Your task to perform on an android device: move a message to another label in the gmail app Image 0: 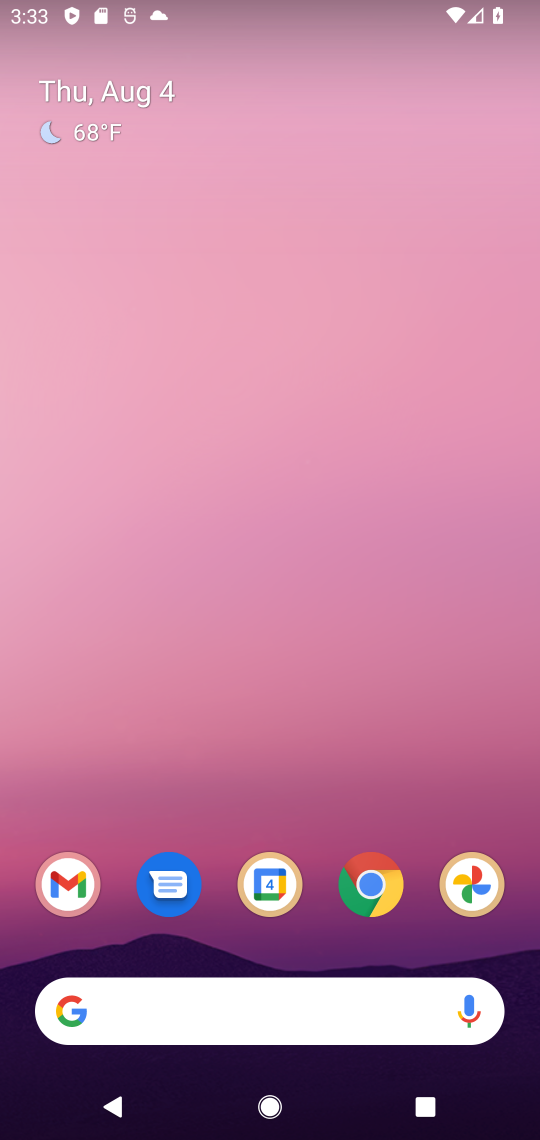
Step 0: drag from (124, 984) to (230, 219)
Your task to perform on an android device: move a message to another label in the gmail app Image 1: 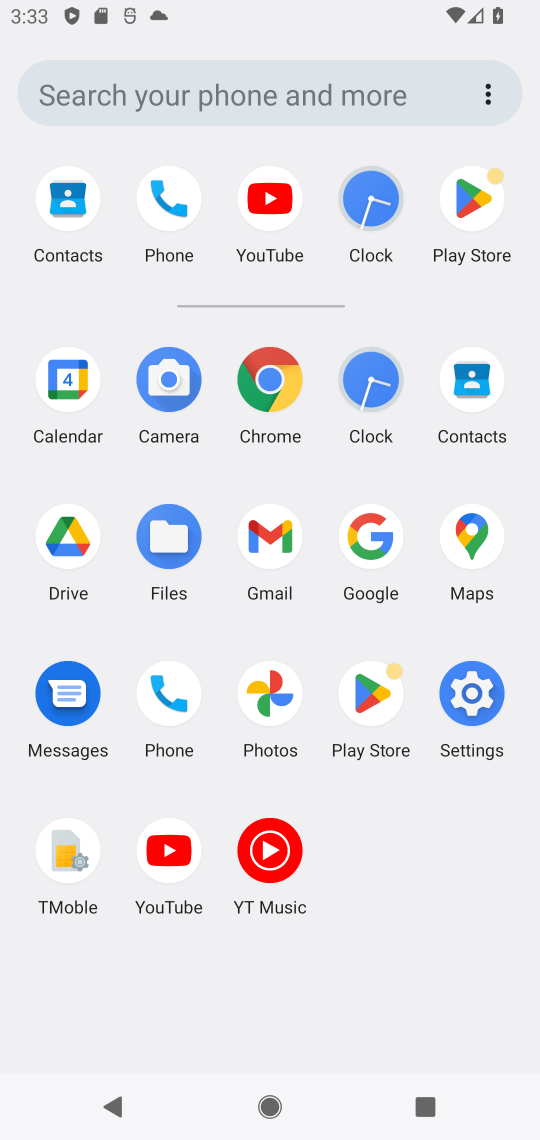
Step 1: click (291, 535)
Your task to perform on an android device: move a message to another label in the gmail app Image 2: 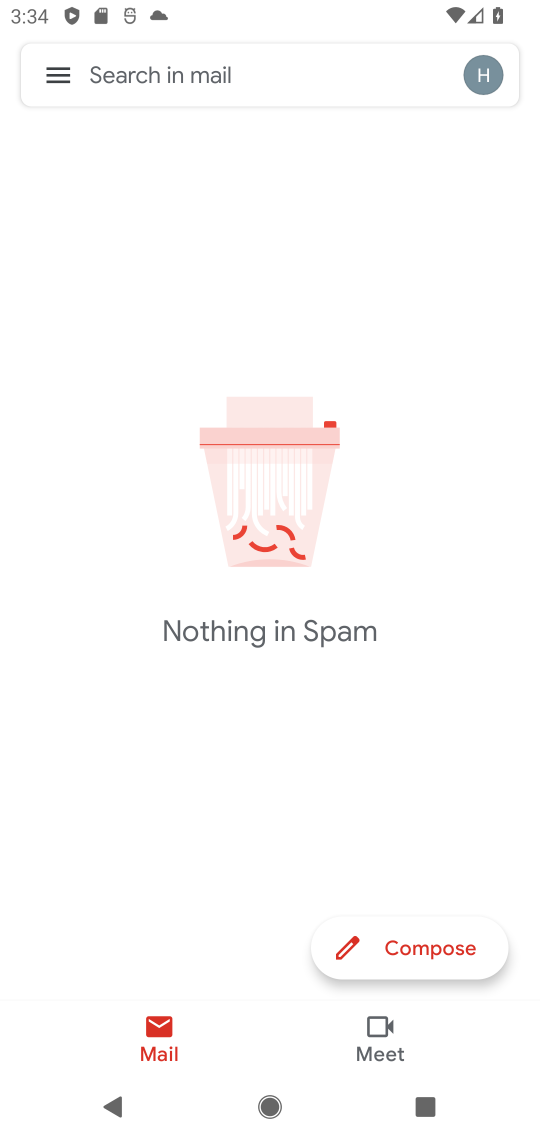
Step 2: click (49, 81)
Your task to perform on an android device: move a message to another label in the gmail app Image 3: 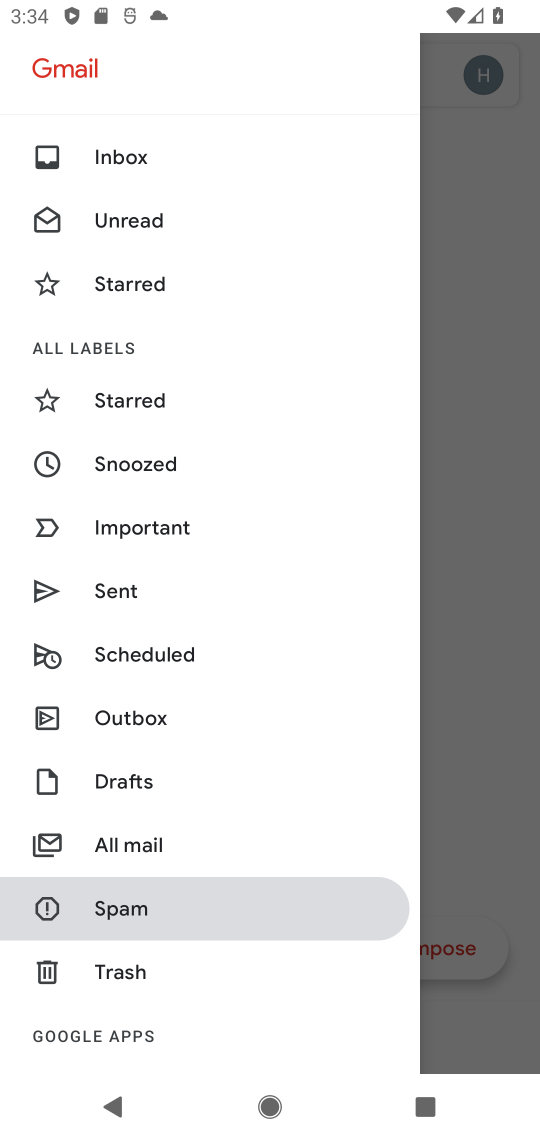
Step 3: click (145, 864)
Your task to perform on an android device: move a message to another label in the gmail app Image 4: 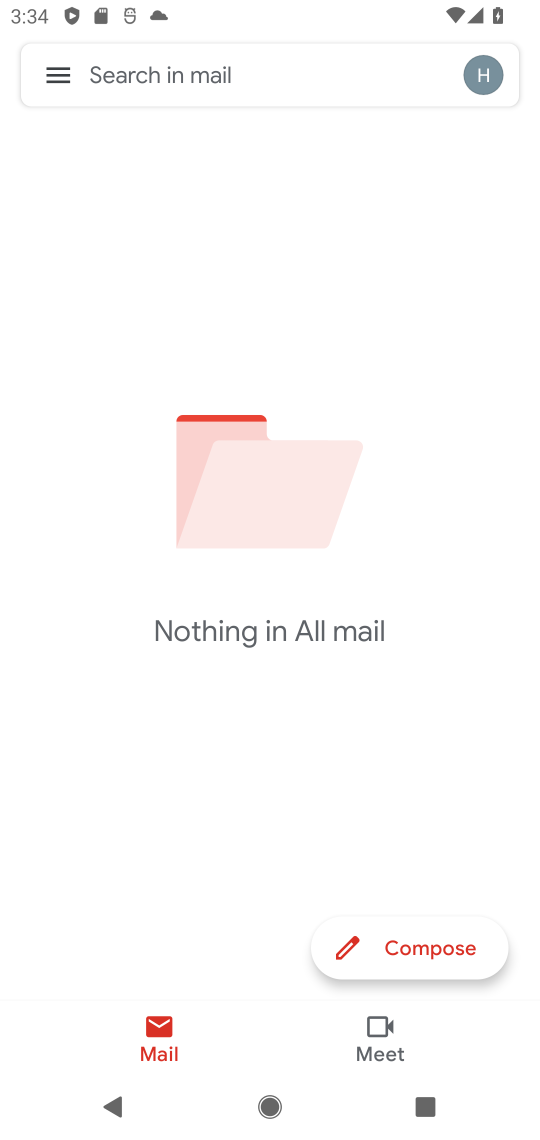
Step 4: task complete